Your task to perform on an android device: Open battery settings Image 0: 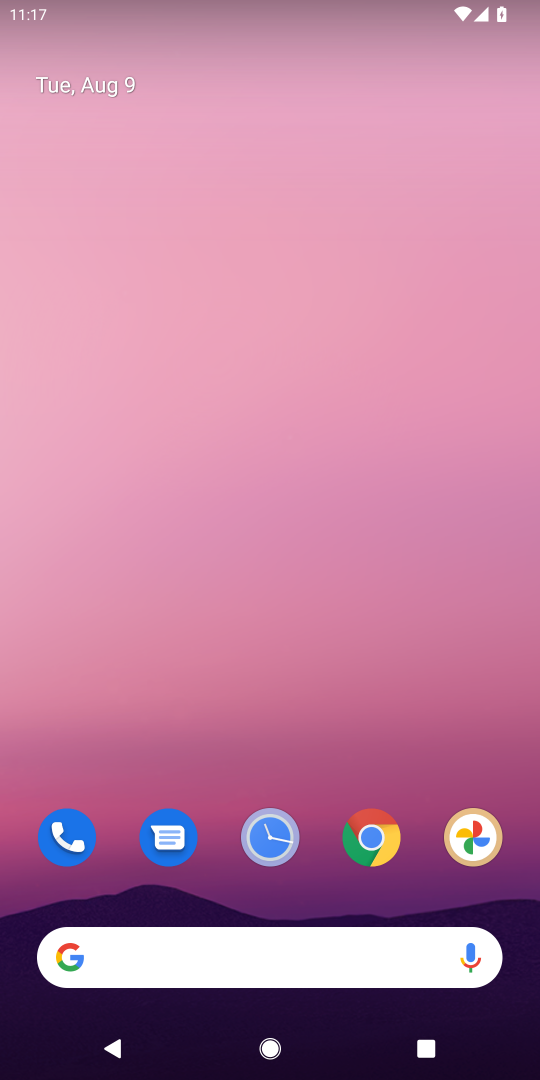
Step 0: drag from (316, 840) to (297, 166)
Your task to perform on an android device: Open battery settings Image 1: 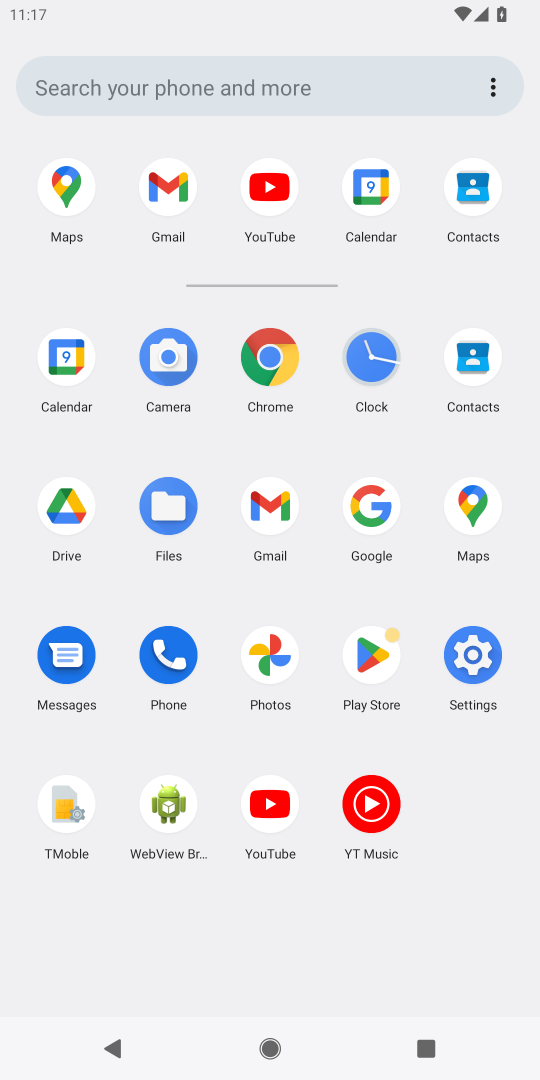
Step 1: click (467, 664)
Your task to perform on an android device: Open battery settings Image 2: 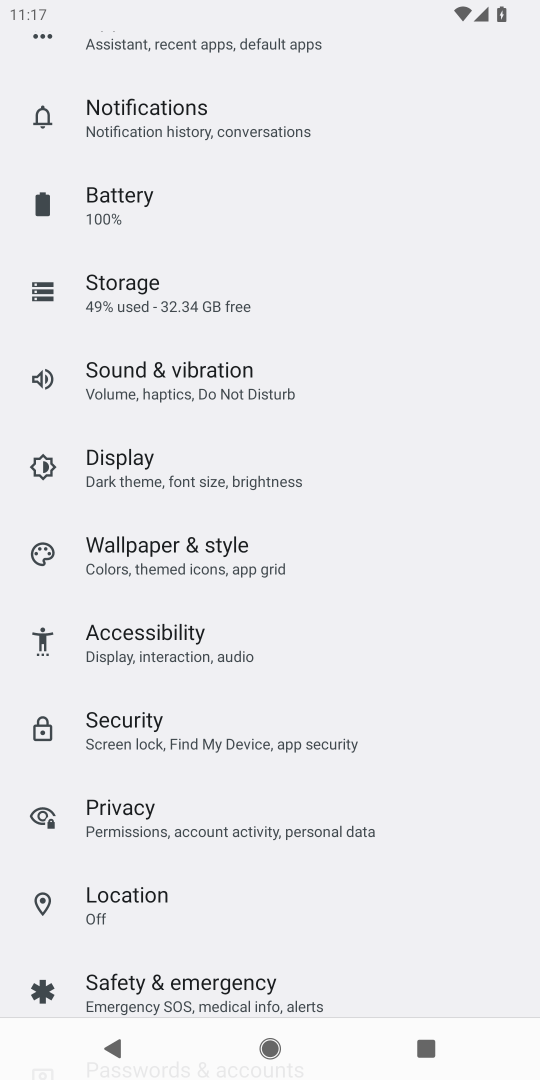
Step 2: click (109, 187)
Your task to perform on an android device: Open battery settings Image 3: 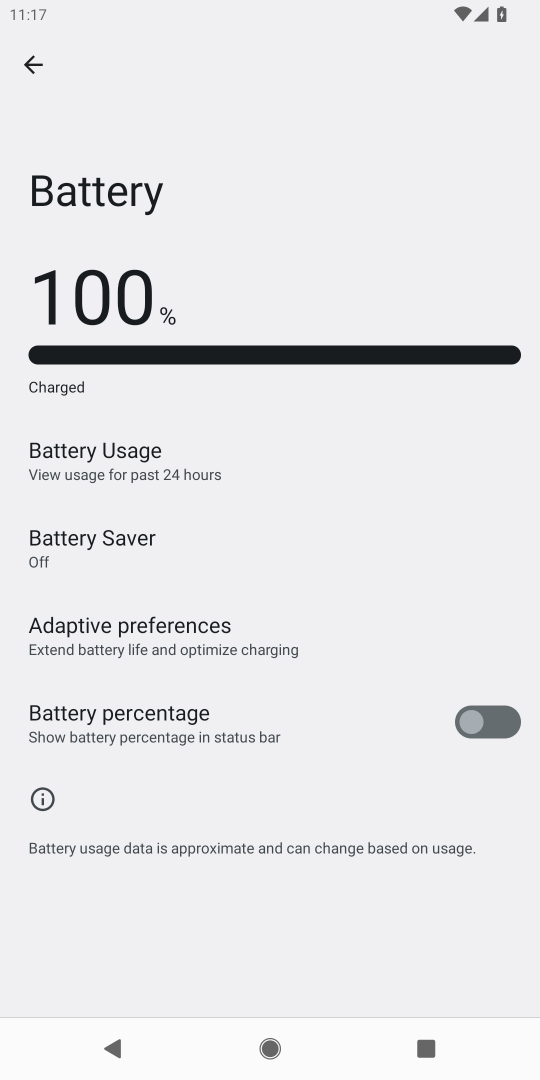
Step 3: task complete